Your task to perform on an android device: Open Maps and search for coffee Image 0: 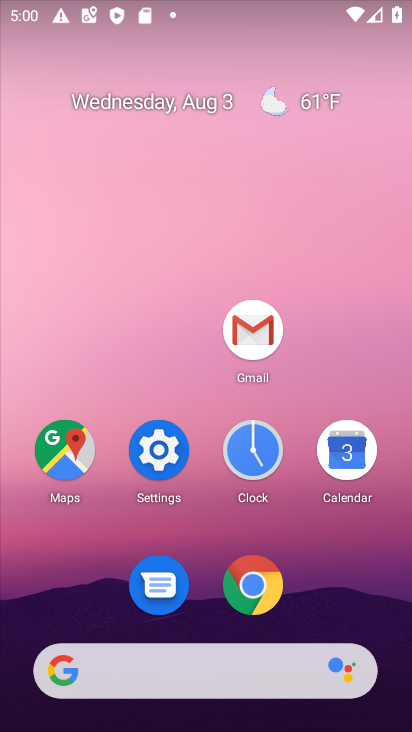
Step 0: click (66, 451)
Your task to perform on an android device: Open Maps and search for coffee Image 1: 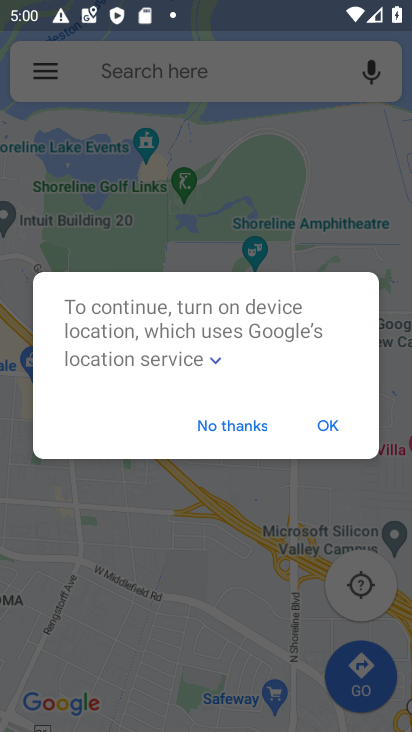
Step 1: click (315, 422)
Your task to perform on an android device: Open Maps and search for coffee Image 2: 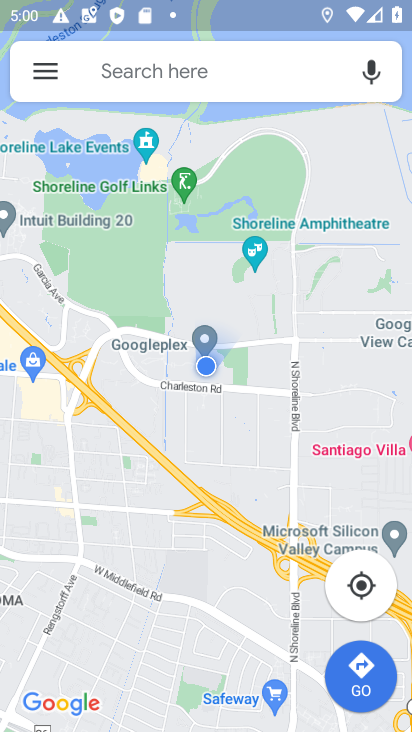
Step 2: click (112, 66)
Your task to perform on an android device: Open Maps and search for coffee Image 3: 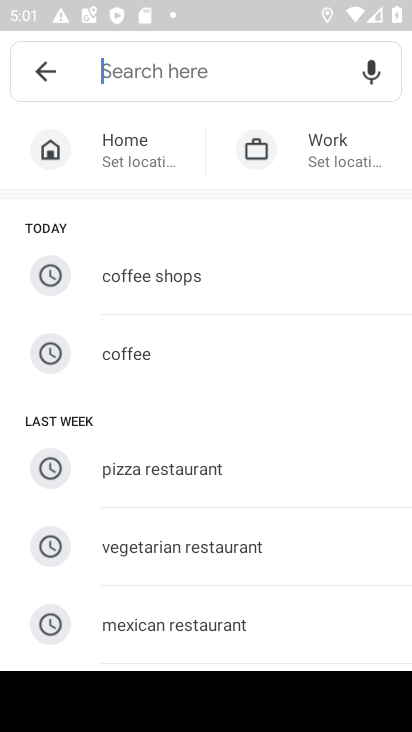
Step 3: type "coffee"
Your task to perform on an android device: Open Maps and search for coffee Image 4: 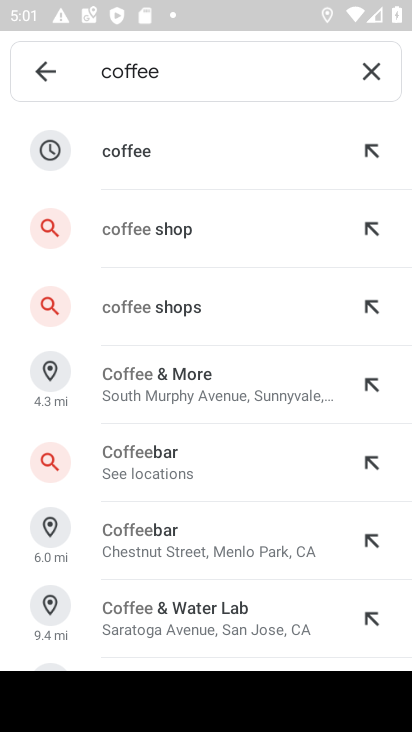
Step 4: click (106, 229)
Your task to perform on an android device: Open Maps and search for coffee Image 5: 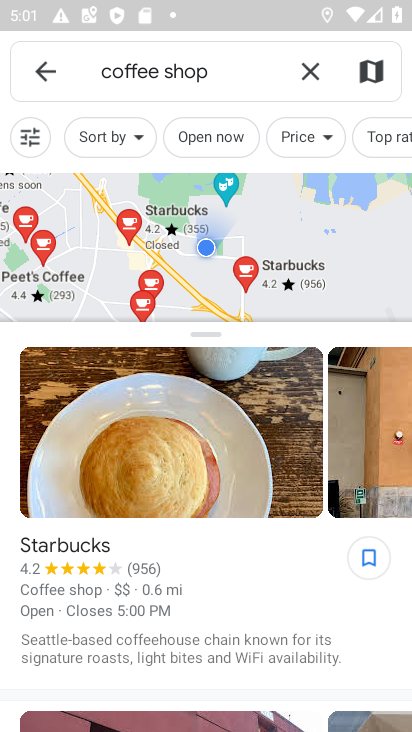
Step 5: task complete